Your task to perform on an android device: Search for "asus zenbook" on ebay.com, select the first entry, add it to the cart, then select checkout. Image 0: 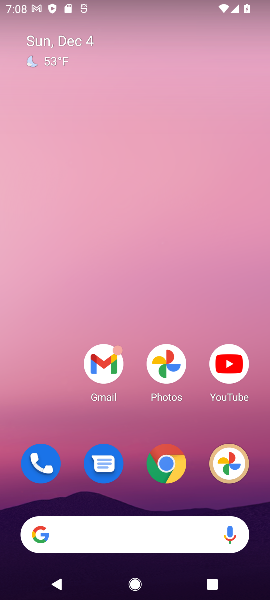
Step 0: click (148, 534)
Your task to perform on an android device: Search for "asus zenbook" on ebay.com, select the first entry, add it to the cart, then select checkout. Image 1: 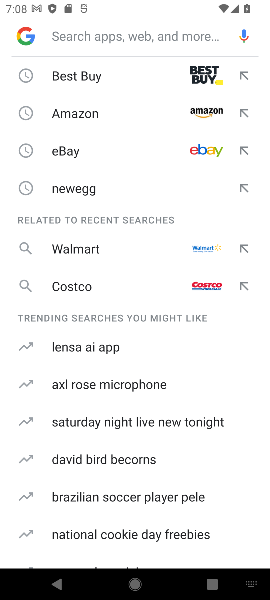
Step 1: type "ebay.com"
Your task to perform on an android device: Search for "asus zenbook" on ebay.com, select the first entry, add it to the cart, then select checkout. Image 2: 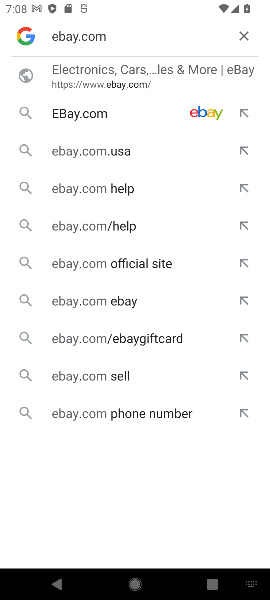
Step 2: click (85, 86)
Your task to perform on an android device: Search for "asus zenbook" on ebay.com, select the first entry, add it to the cart, then select checkout. Image 3: 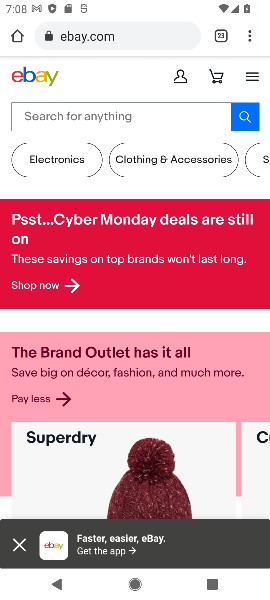
Step 3: click (94, 112)
Your task to perform on an android device: Search for "asus zenbook" on ebay.com, select the first entry, add it to the cart, then select checkout. Image 4: 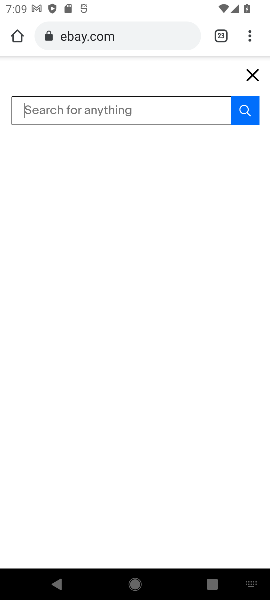
Step 4: type "asuszenbook"
Your task to perform on an android device: Search for "asus zenbook" on ebay.com, select the first entry, add it to the cart, then select checkout. Image 5: 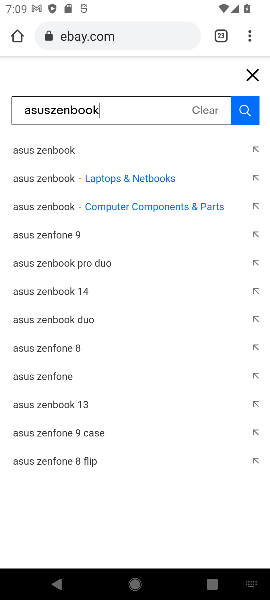
Step 5: click (129, 147)
Your task to perform on an android device: Search for "asus zenbook" on ebay.com, select the first entry, add it to the cart, then select checkout. Image 6: 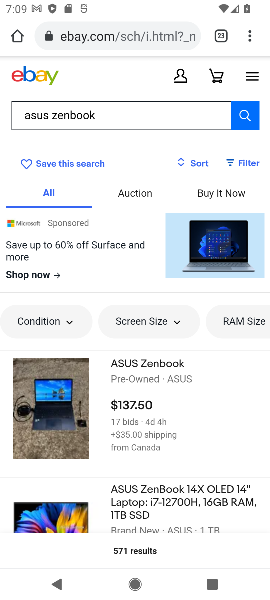
Step 6: click (130, 367)
Your task to perform on an android device: Search for "asus zenbook" on ebay.com, select the first entry, add it to the cart, then select checkout. Image 7: 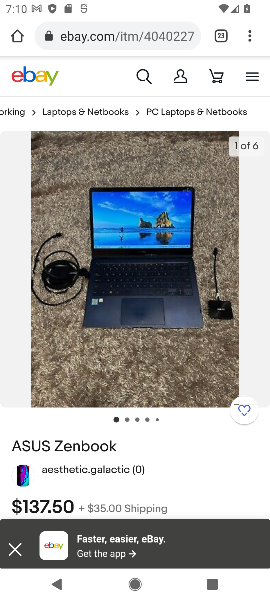
Step 7: click (15, 554)
Your task to perform on an android device: Search for "asus zenbook" on ebay.com, select the first entry, add it to the cart, then select checkout. Image 8: 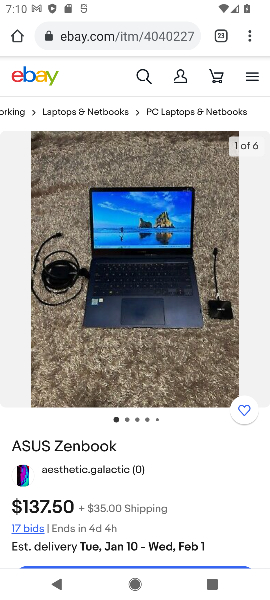
Step 8: drag from (215, 504) to (219, 288)
Your task to perform on an android device: Search for "asus zenbook" on ebay.com, select the first entry, add it to the cart, then select checkout. Image 9: 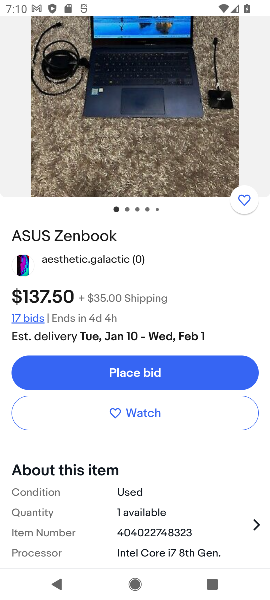
Step 9: click (191, 378)
Your task to perform on an android device: Search for "asus zenbook" on ebay.com, select the first entry, add it to the cart, then select checkout. Image 10: 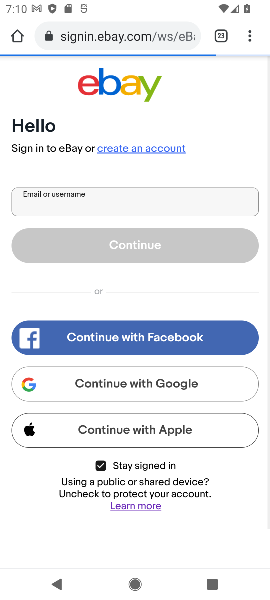
Step 10: task complete